Your task to perform on an android device: open app "The Home Depot" (install if not already installed) and enter user name: "taproot@icloud.com" and password: "executions" Image 0: 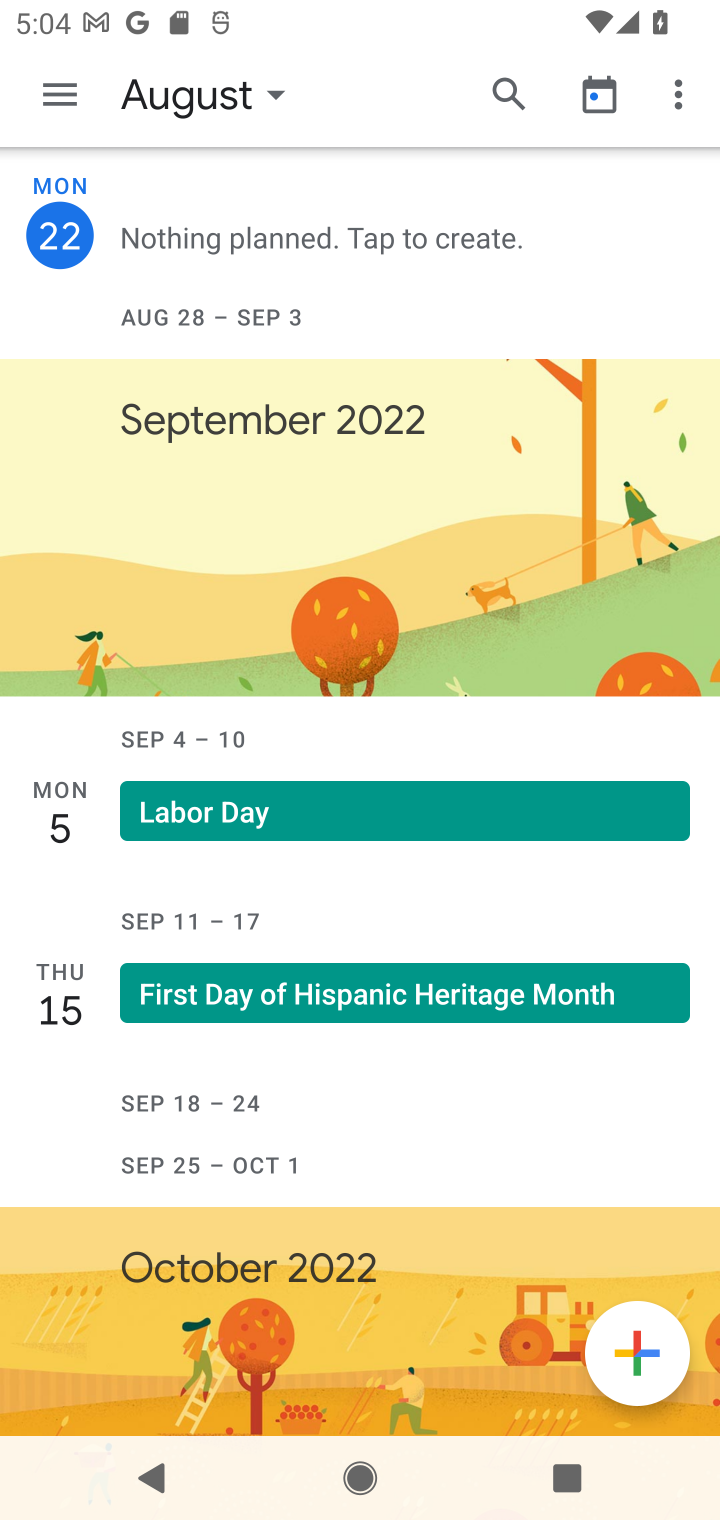
Step 0: press home button
Your task to perform on an android device: open app "The Home Depot" (install if not already installed) and enter user name: "taproot@icloud.com" and password: "executions" Image 1: 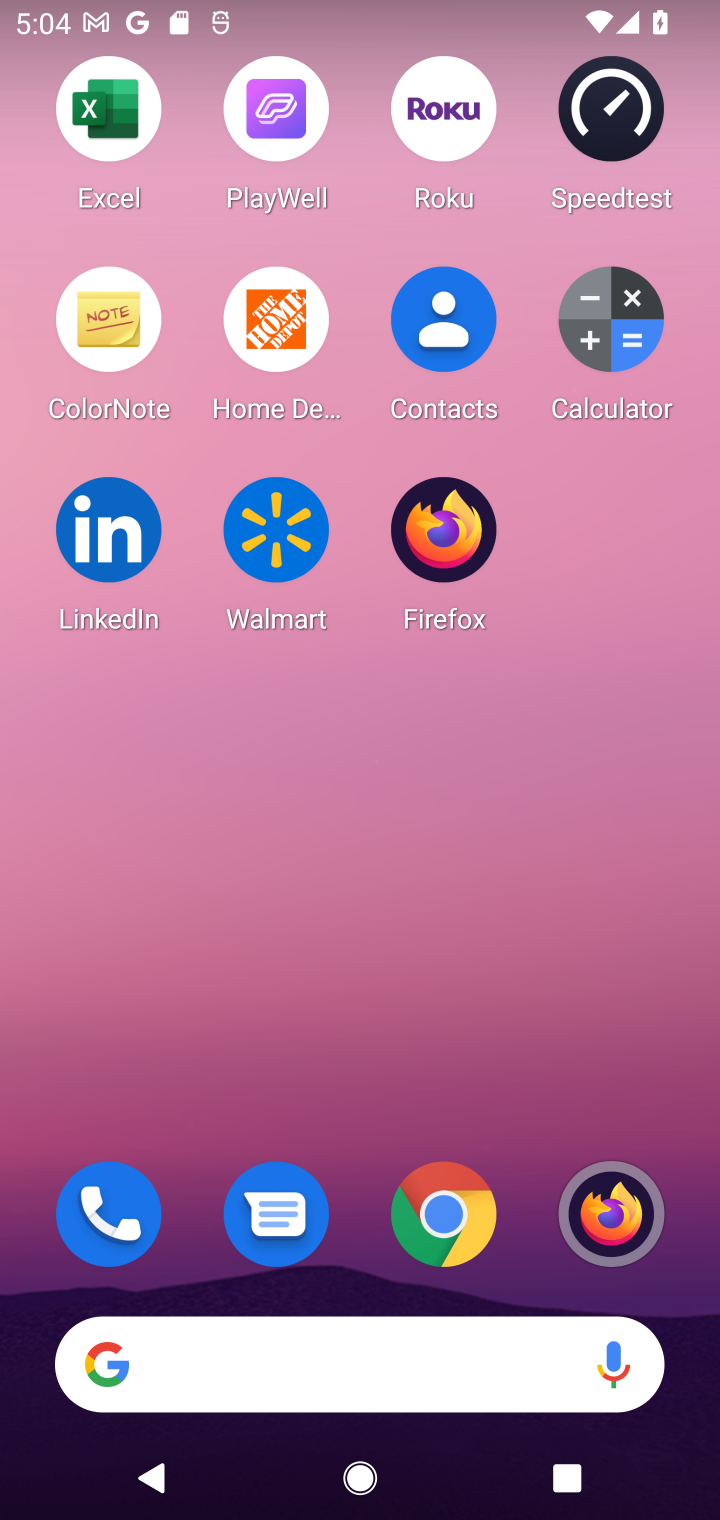
Step 1: click (265, 324)
Your task to perform on an android device: open app "The Home Depot" (install if not already installed) and enter user name: "taproot@icloud.com" and password: "executions" Image 2: 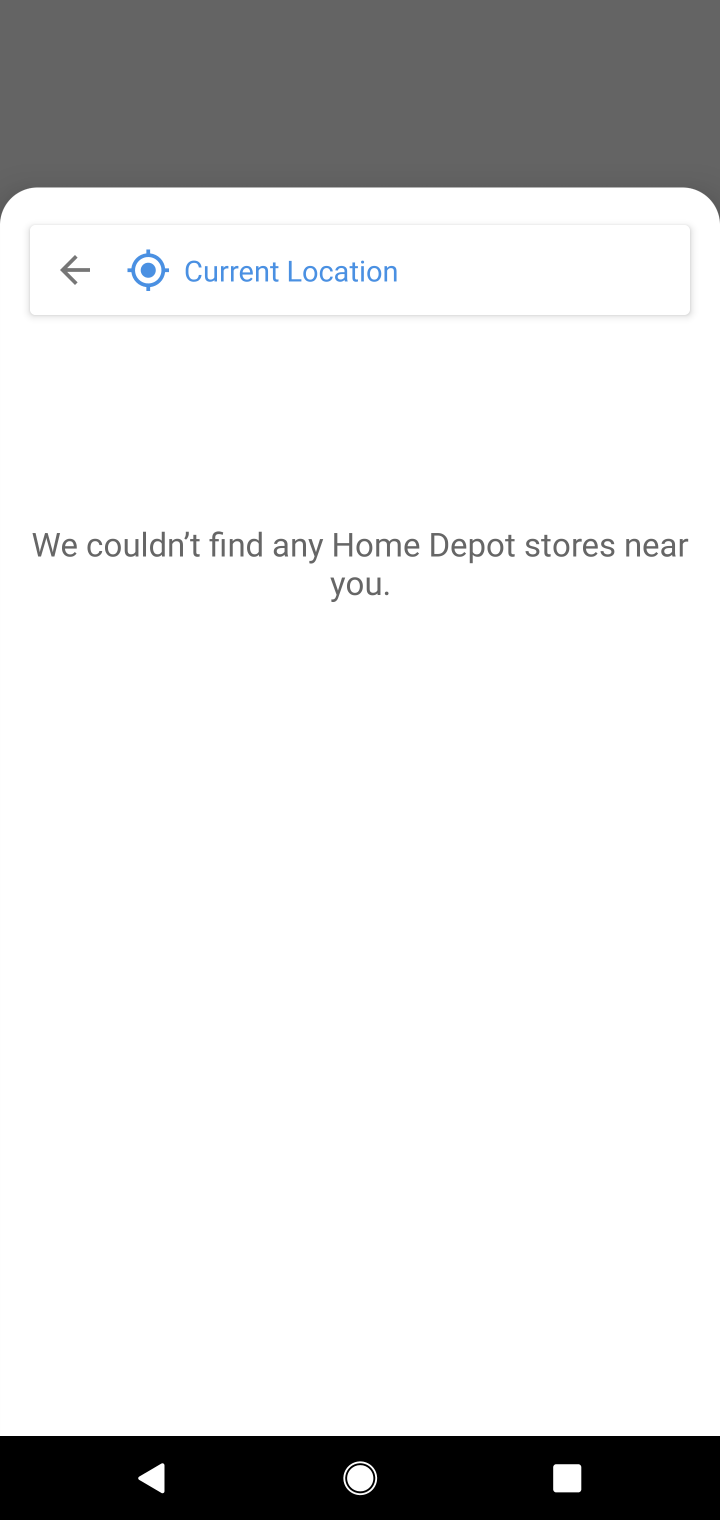
Step 2: press back button
Your task to perform on an android device: open app "The Home Depot" (install if not already installed) and enter user name: "taproot@icloud.com" and password: "executions" Image 3: 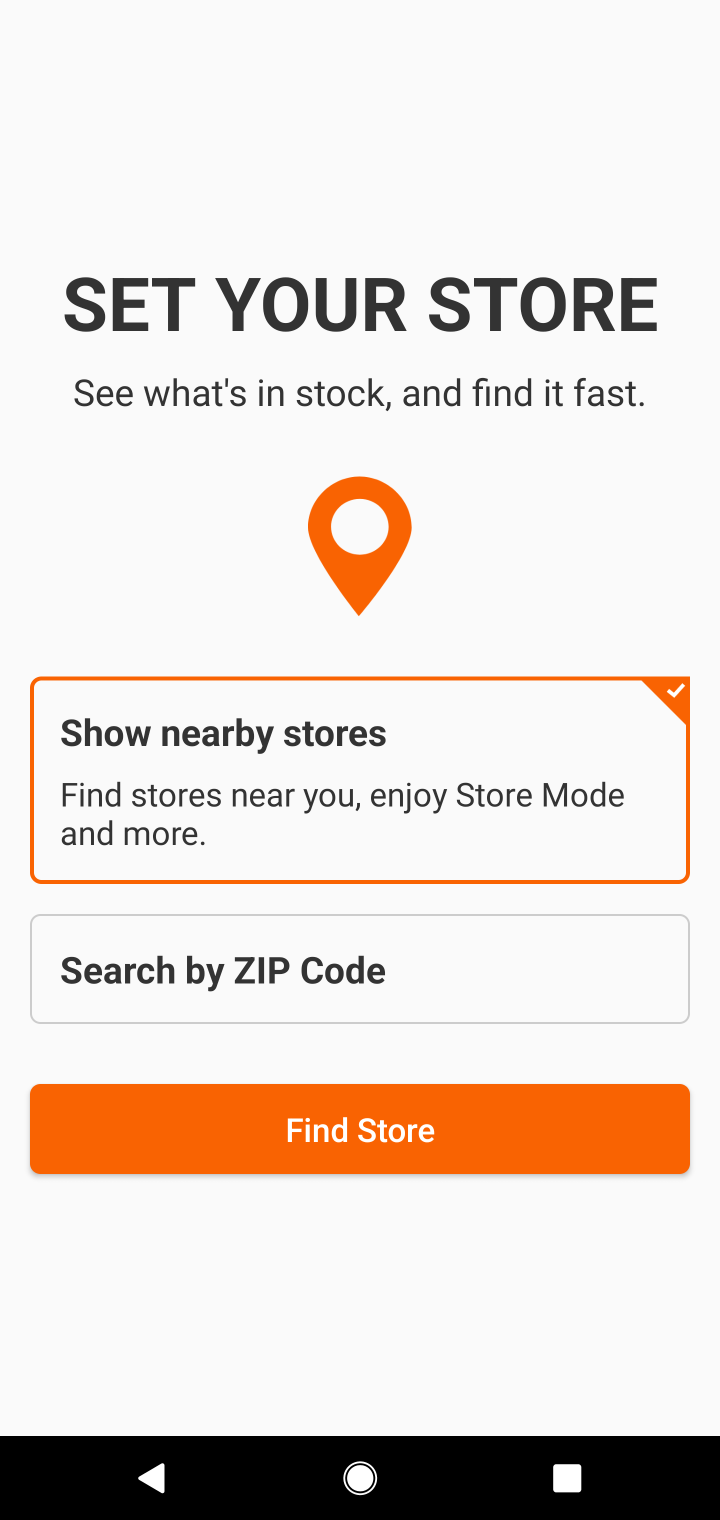
Step 3: click (347, 1142)
Your task to perform on an android device: open app "The Home Depot" (install if not already installed) and enter user name: "taproot@icloud.com" and password: "executions" Image 4: 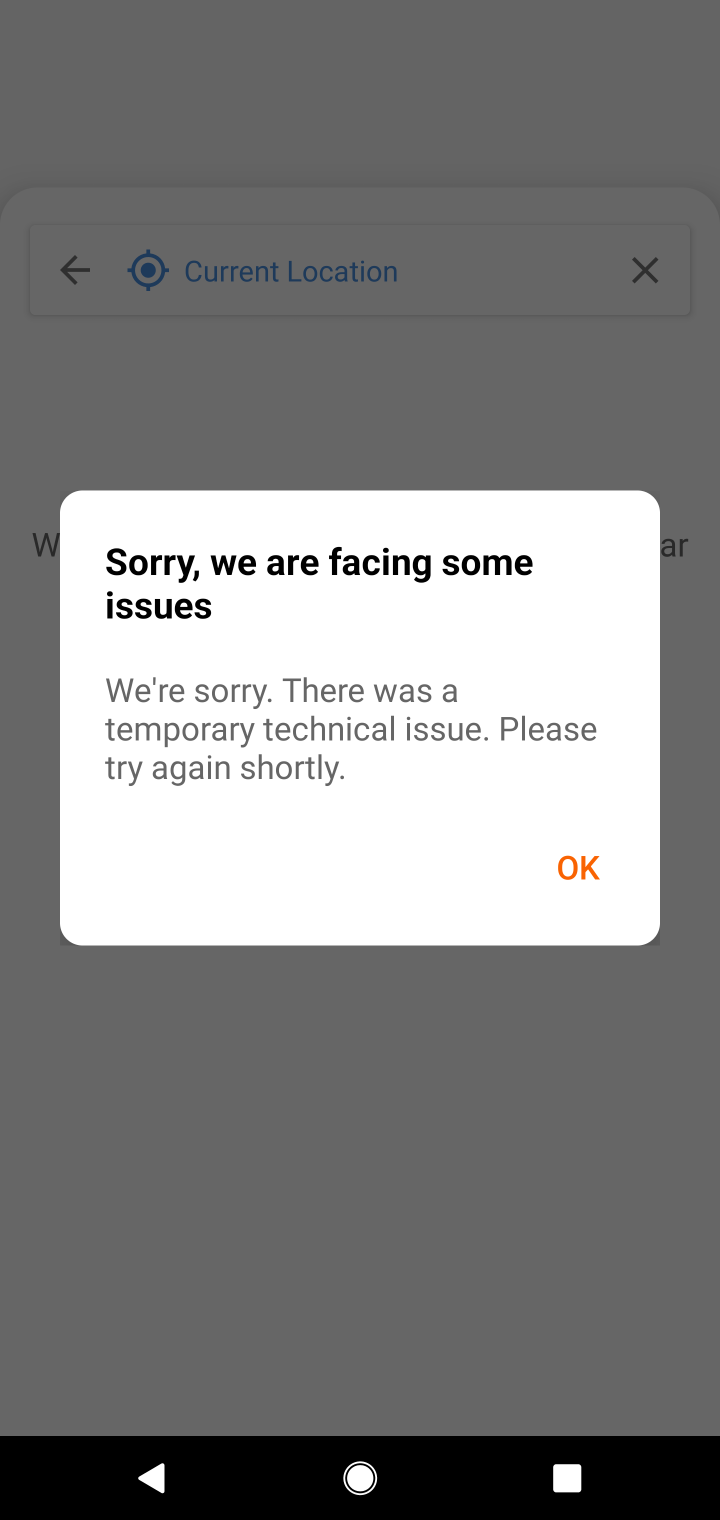
Step 4: click (567, 853)
Your task to perform on an android device: open app "The Home Depot" (install if not already installed) and enter user name: "taproot@icloud.com" and password: "executions" Image 5: 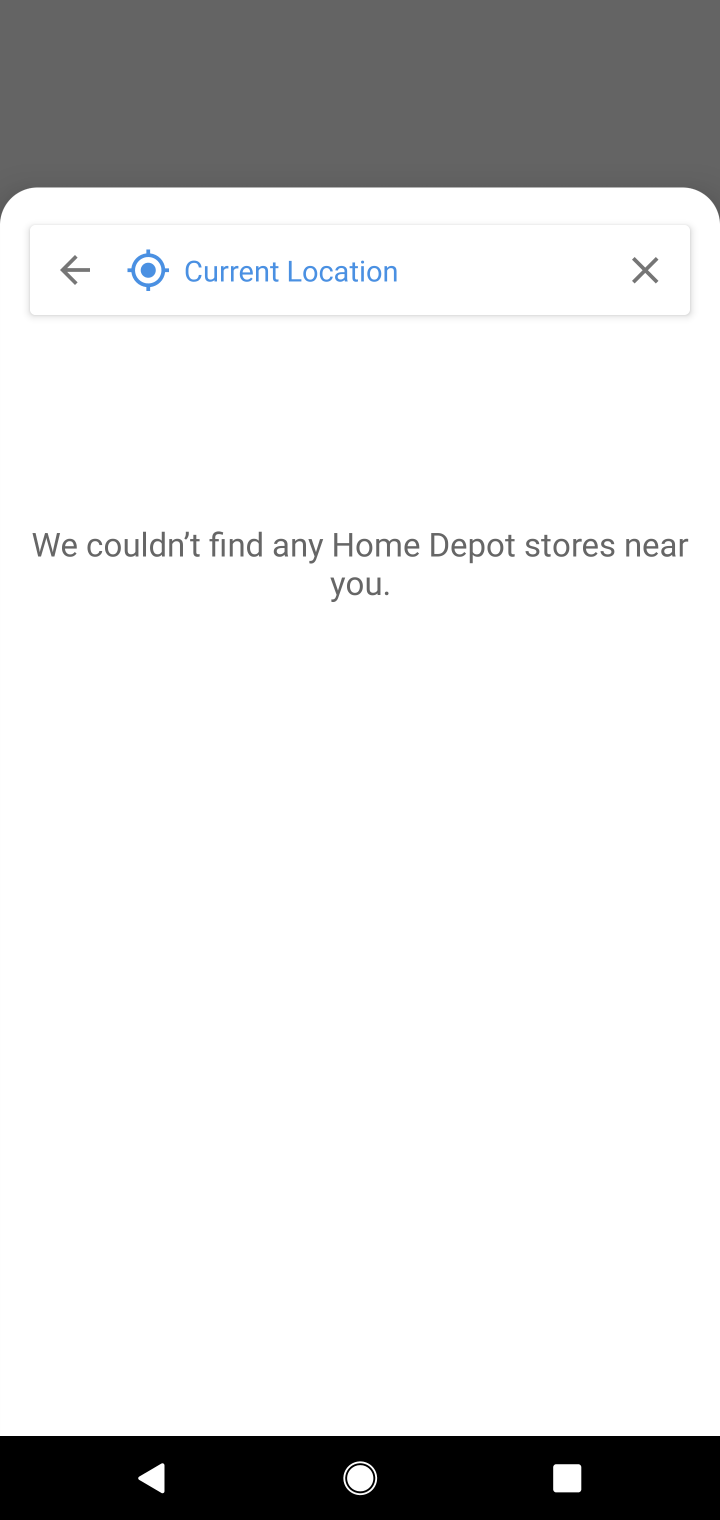
Step 5: task complete